Your task to perform on an android device: Open display settings Image 0: 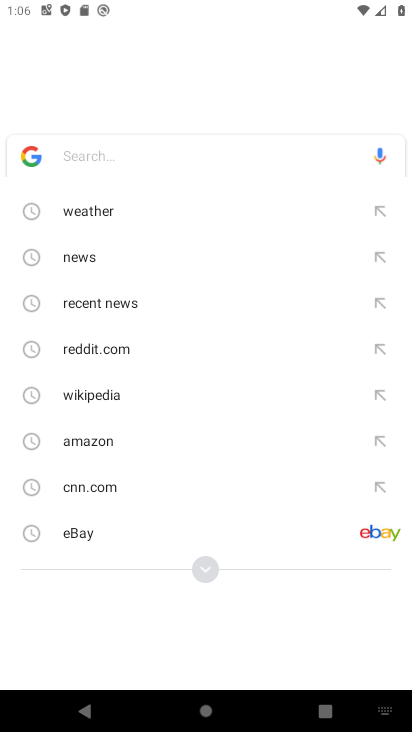
Step 0: press home button
Your task to perform on an android device: Open display settings Image 1: 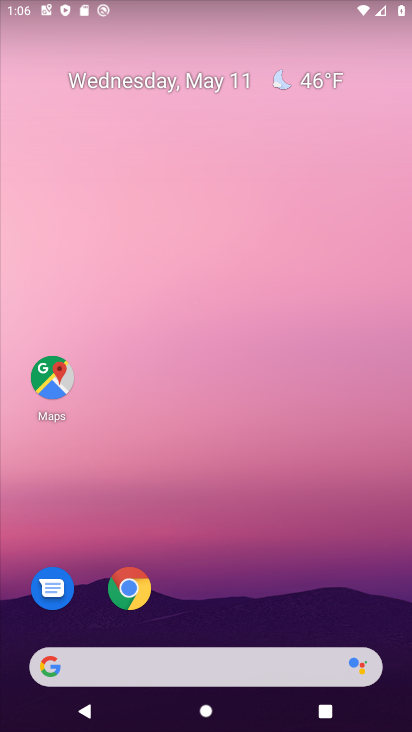
Step 1: drag from (260, 563) to (268, 232)
Your task to perform on an android device: Open display settings Image 2: 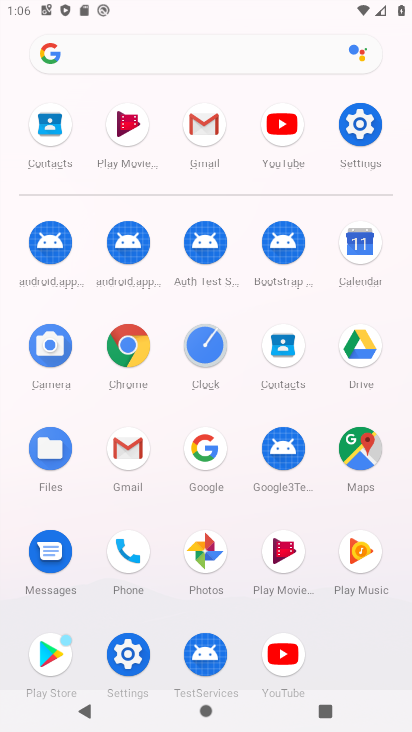
Step 2: click (370, 132)
Your task to perform on an android device: Open display settings Image 3: 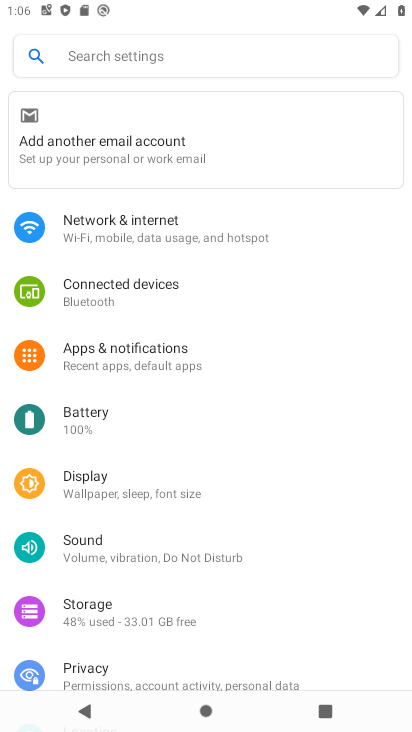
Step 3: click (138, 478)
Your task to perform on an android device: Open display settings Image 4: 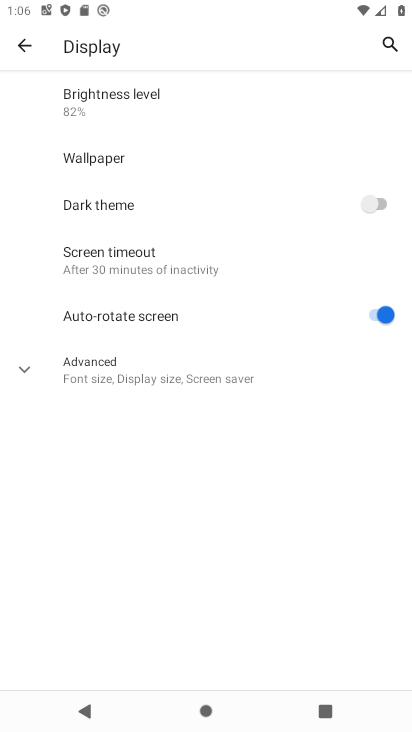
Step 4: task complete